Your task to perform on an android device: turn on wifi Image 0: 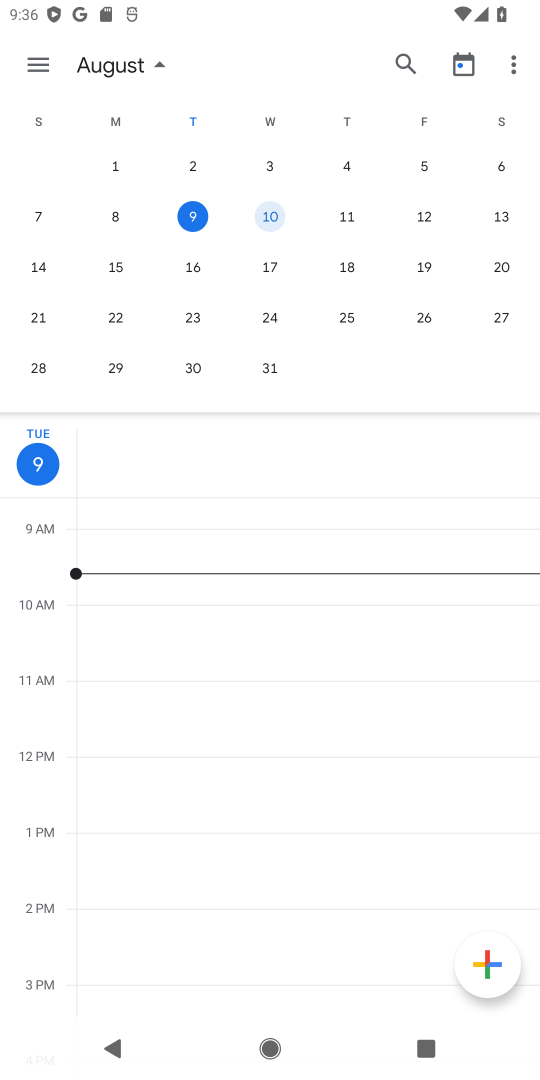
Step 0: press home button
Your task to perform on an android device: turn on wifi Image 1: 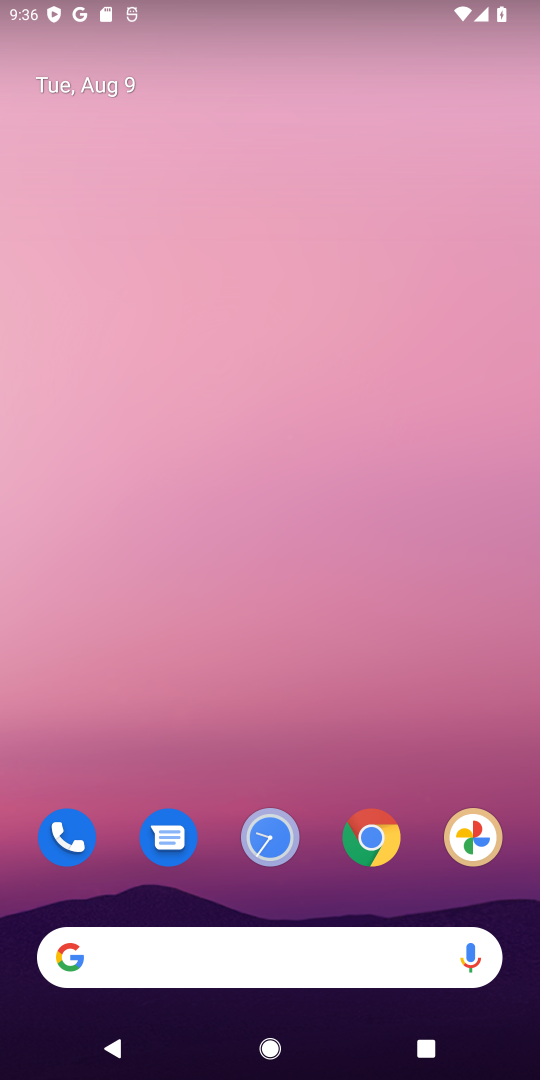
Step 1: drag from (314, 908) to (278, 87)
Your task to perform on an android device: turn on wifi Image 2: 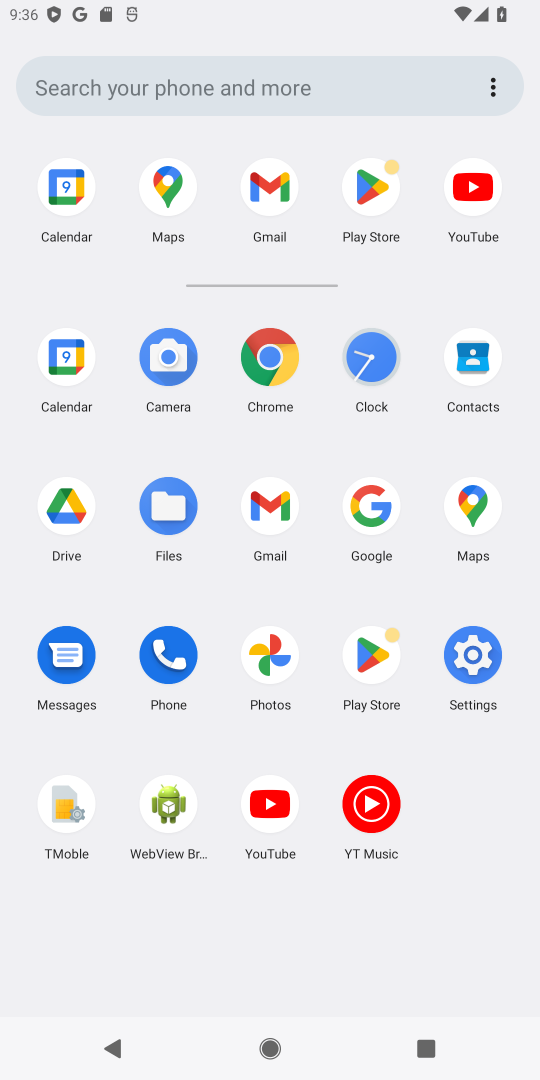
Step 2: click (480, 657)
Your task to perform on an android device: turn on wifi Image 3: 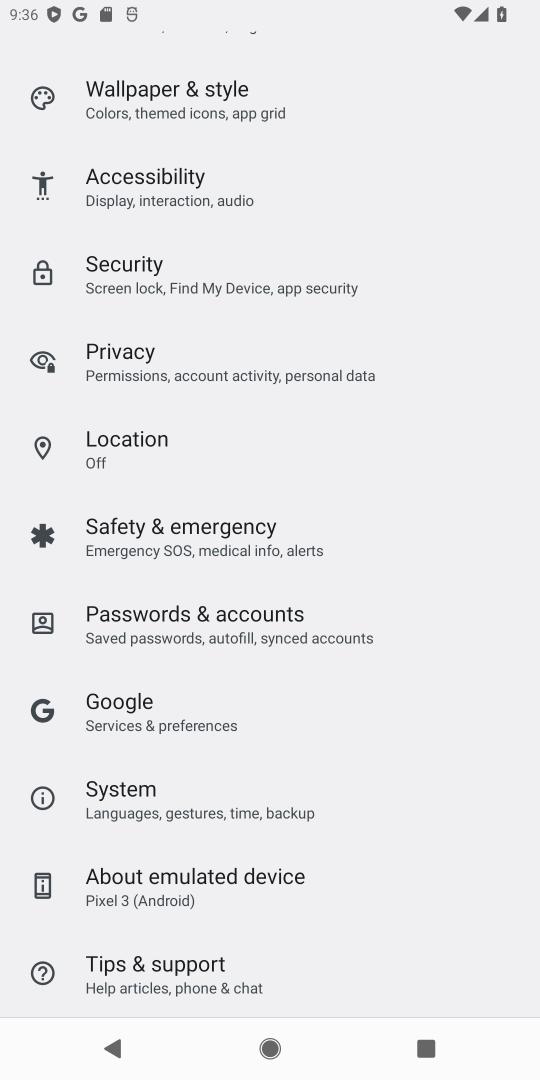
Step 3: drag from (164, 162) to (128, 764)
Your task to perform on an android device: turn on wifi Image 4: 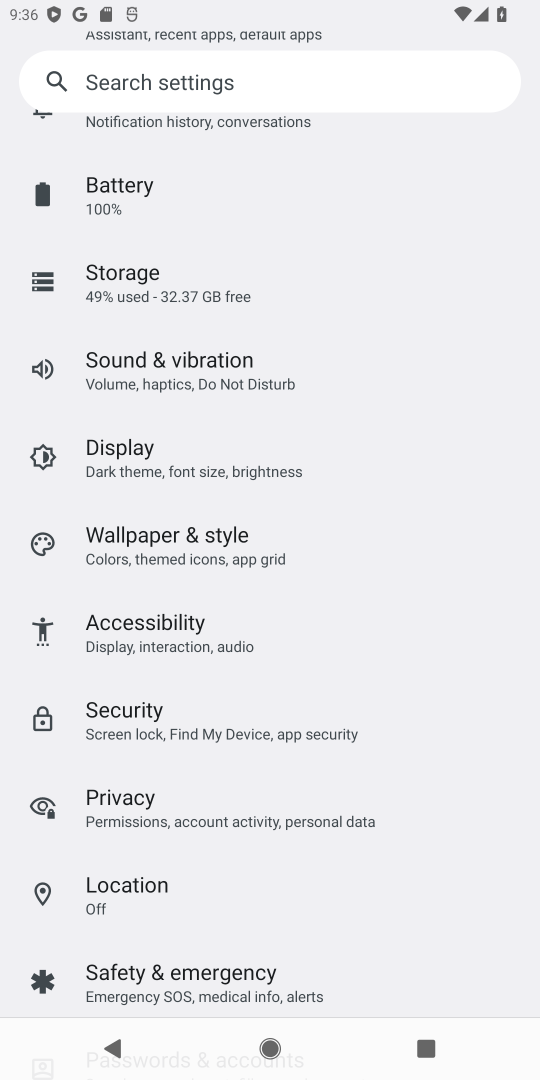
Step 4: drag from (123, 189) to (120, 910)
Your task to perform on an android device: turn on wifi Image 5: 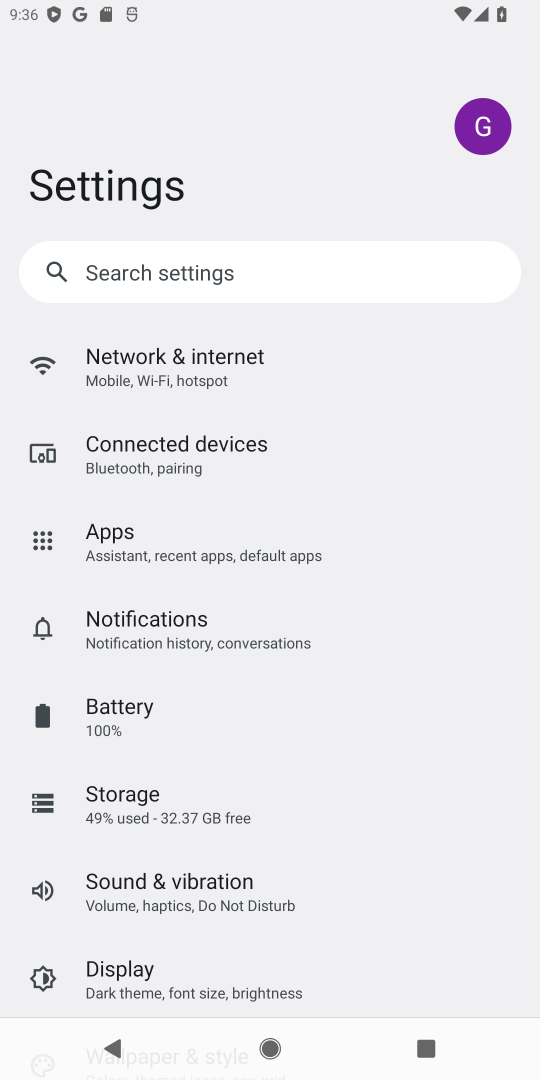
Step 5: click (152, 367)
Your task to perform on an android device: turn on wifi Image 6: 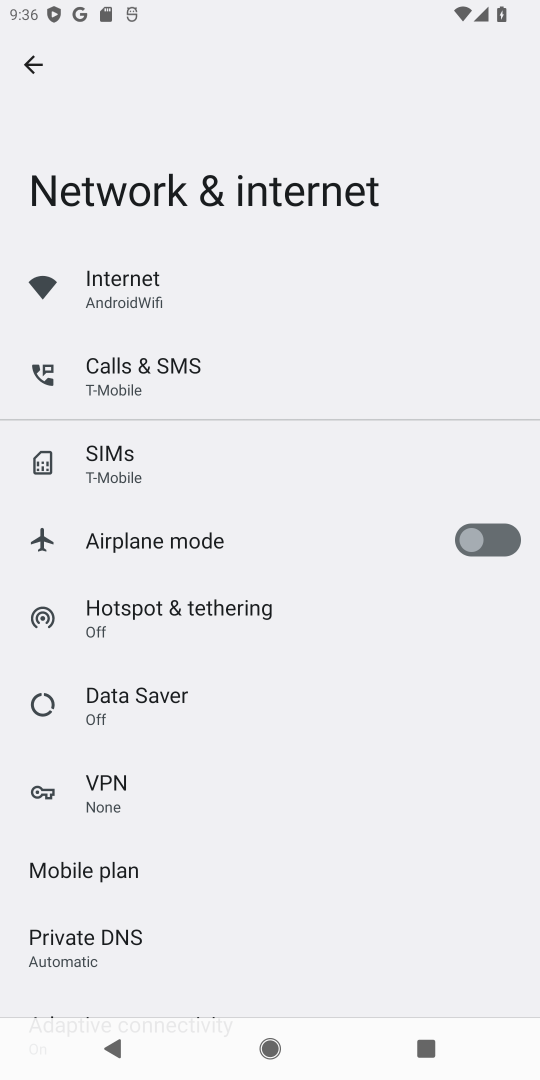
Step 6: click (118, 284)
Your task to perform on an android device: turn on wifi Image 7: 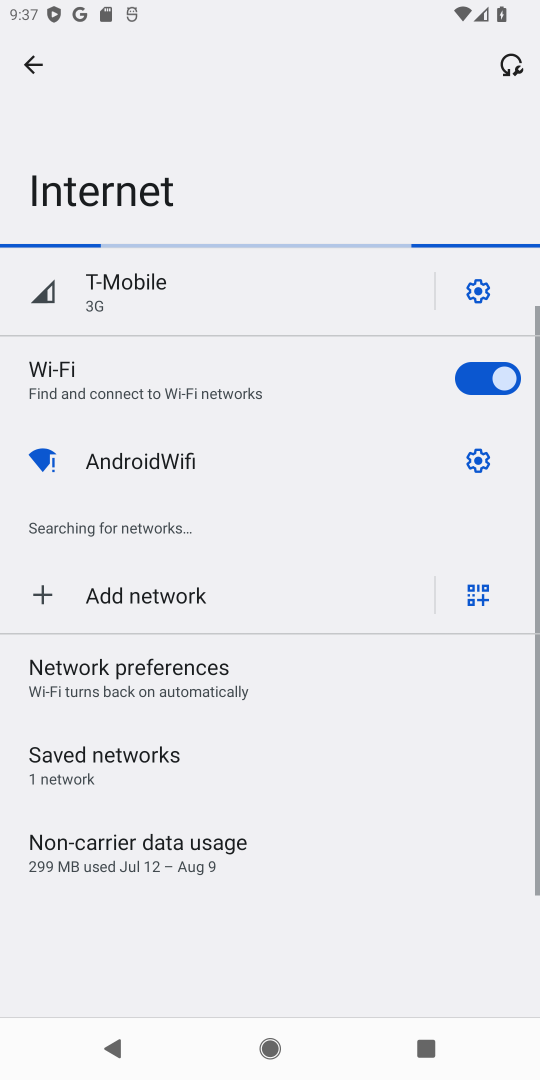
Step 7: task complete